Your task to perform on an android device: Clear all items from cart on newegg.com. Search for dell alienware on newegg.com, select the first entry, and add it to the cart. Image 0: 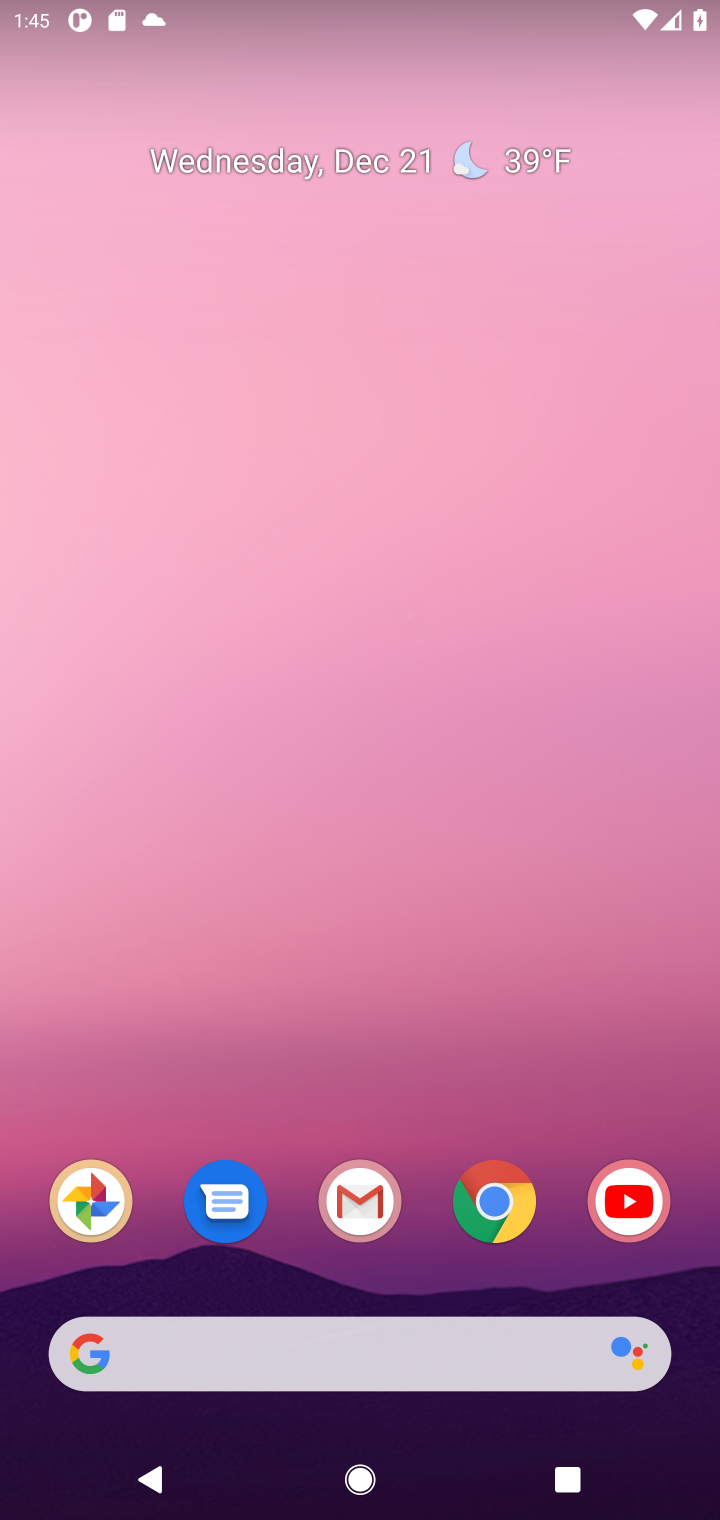
Step 0: click (492, 1205)
Your task to perform on an android device: Clear all items from cart on newegg.com. Search for dell alienware on newegg.com, select the first entry, and add it to the cart. Image 1: 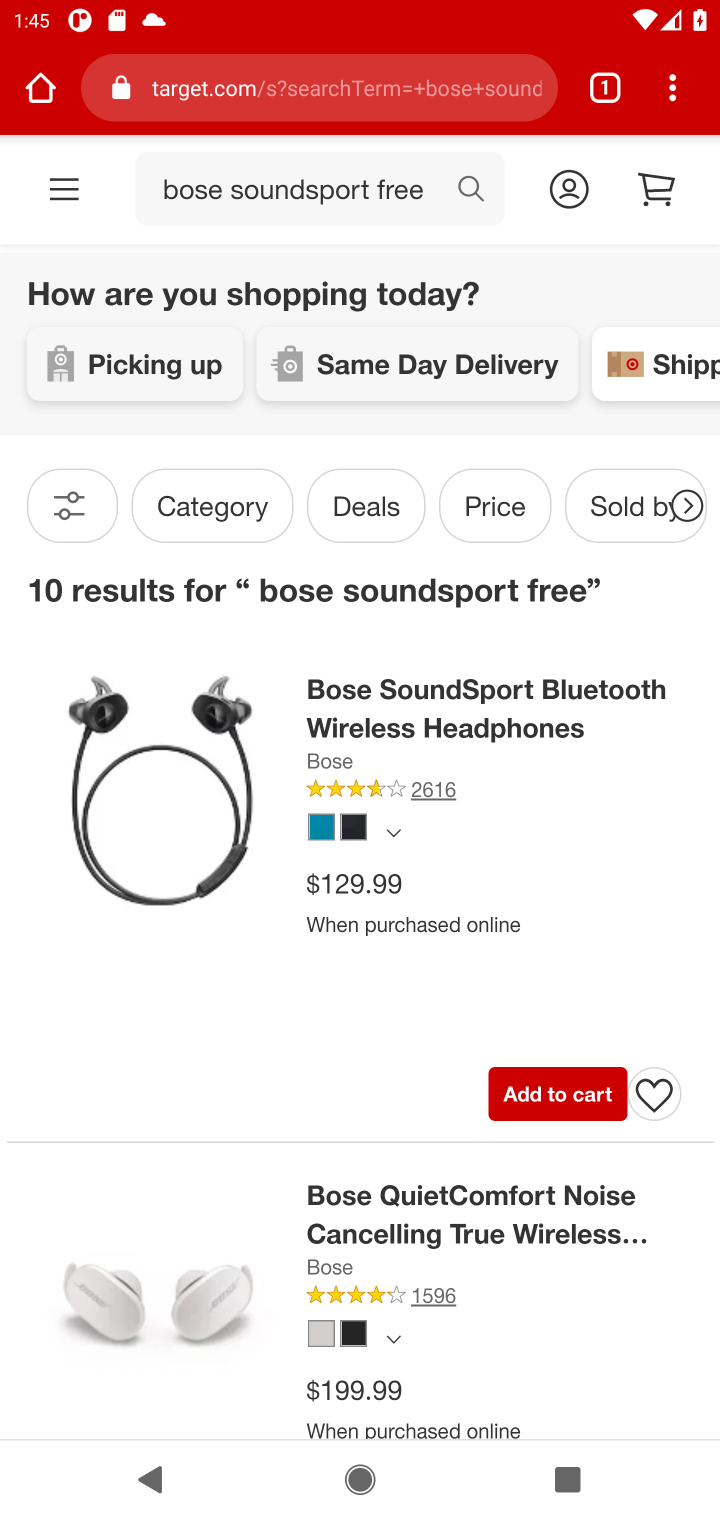
Step 1: click (234, 87)
Your task to perform on an android device: Clear all items from cart on newegg.com. Search for dell alienware on newegg.com, select the first entry, and add it to the cart. Image 2: 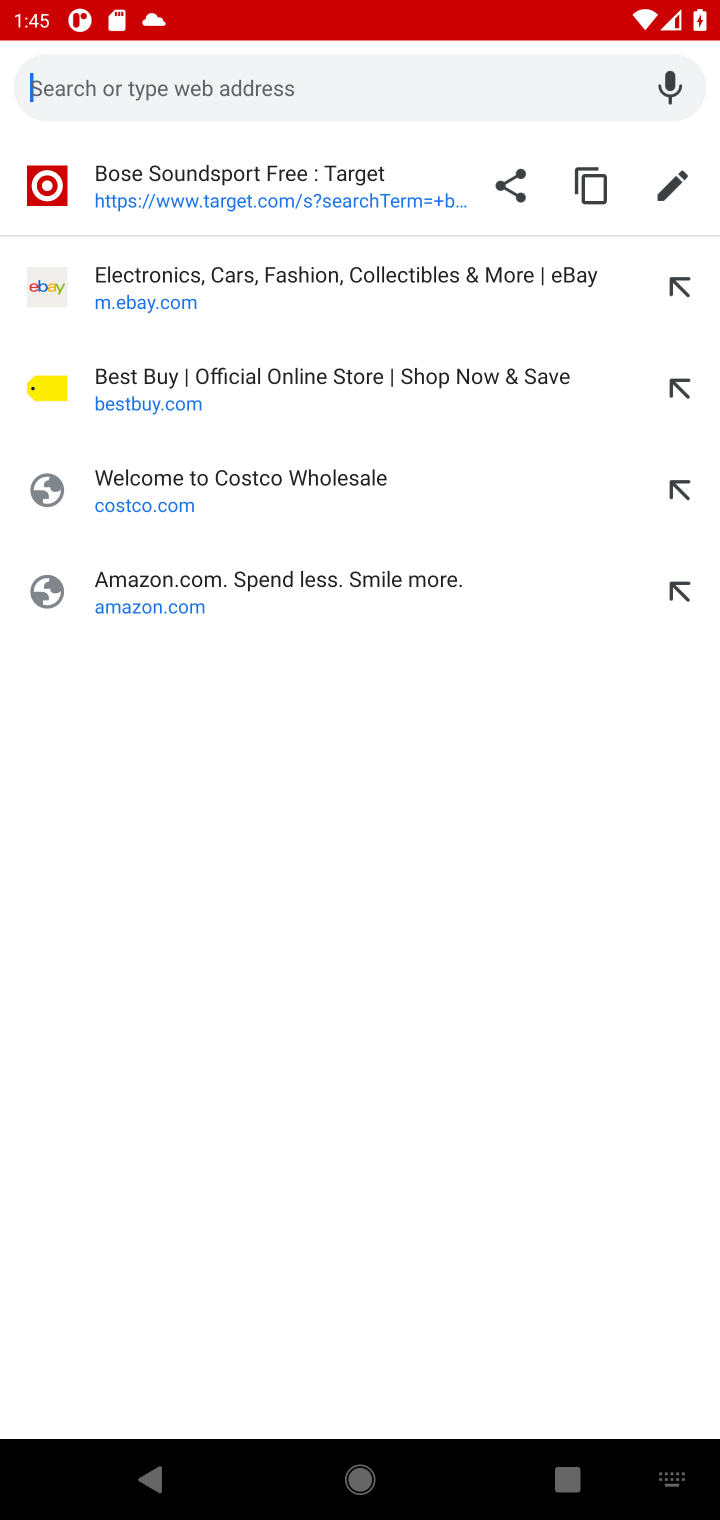
Step 2: type "newegg.com"
Your task to perform on an android device: Clear all items from cart on newegg.com. Search for dell alienware on newegg.com, select the first entry, and add it to the cart. Image 3: 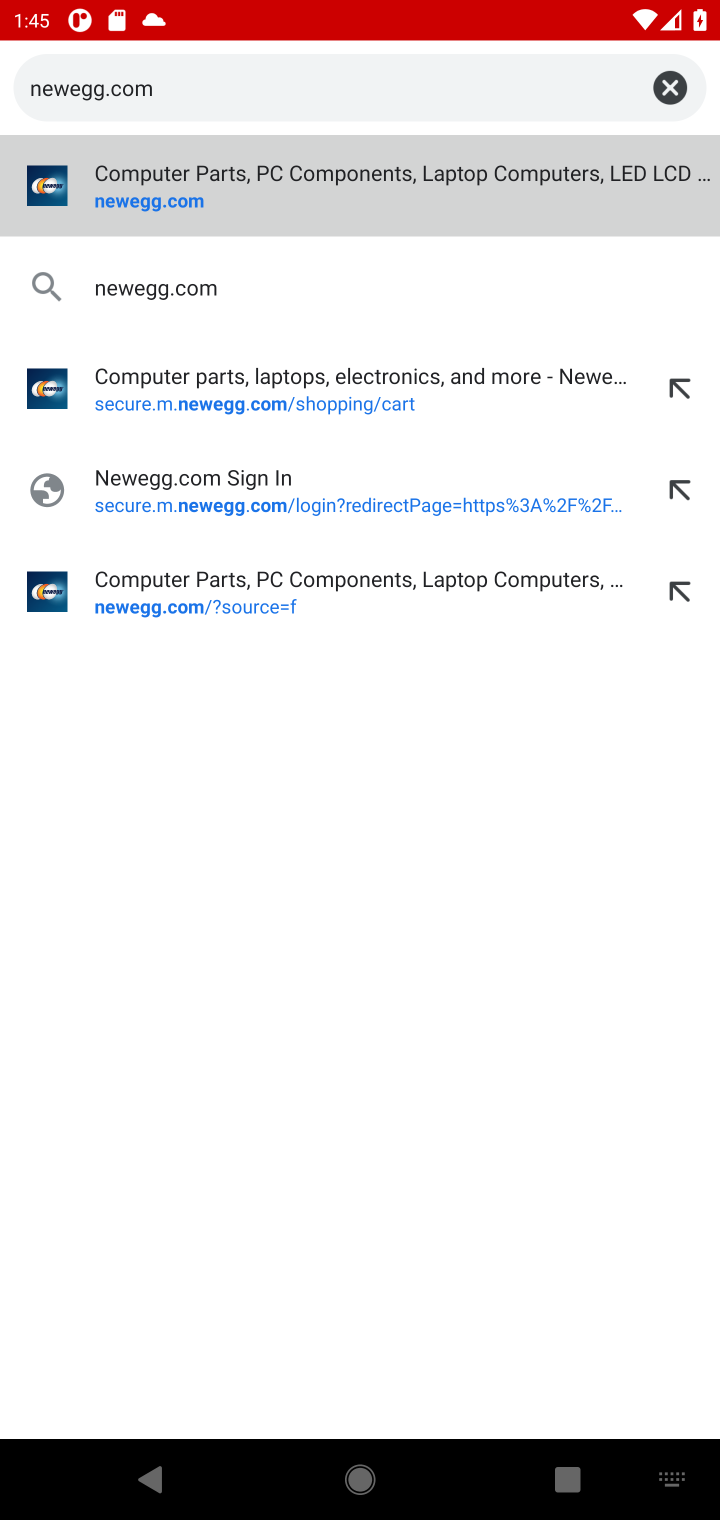
Step 3: click (155, 195)
Your task to perform on an android device: Clear all items from cart on newegg.com. Search for dell alienware on newegg.com, select the first entry, and add it to the cart. Image 4: 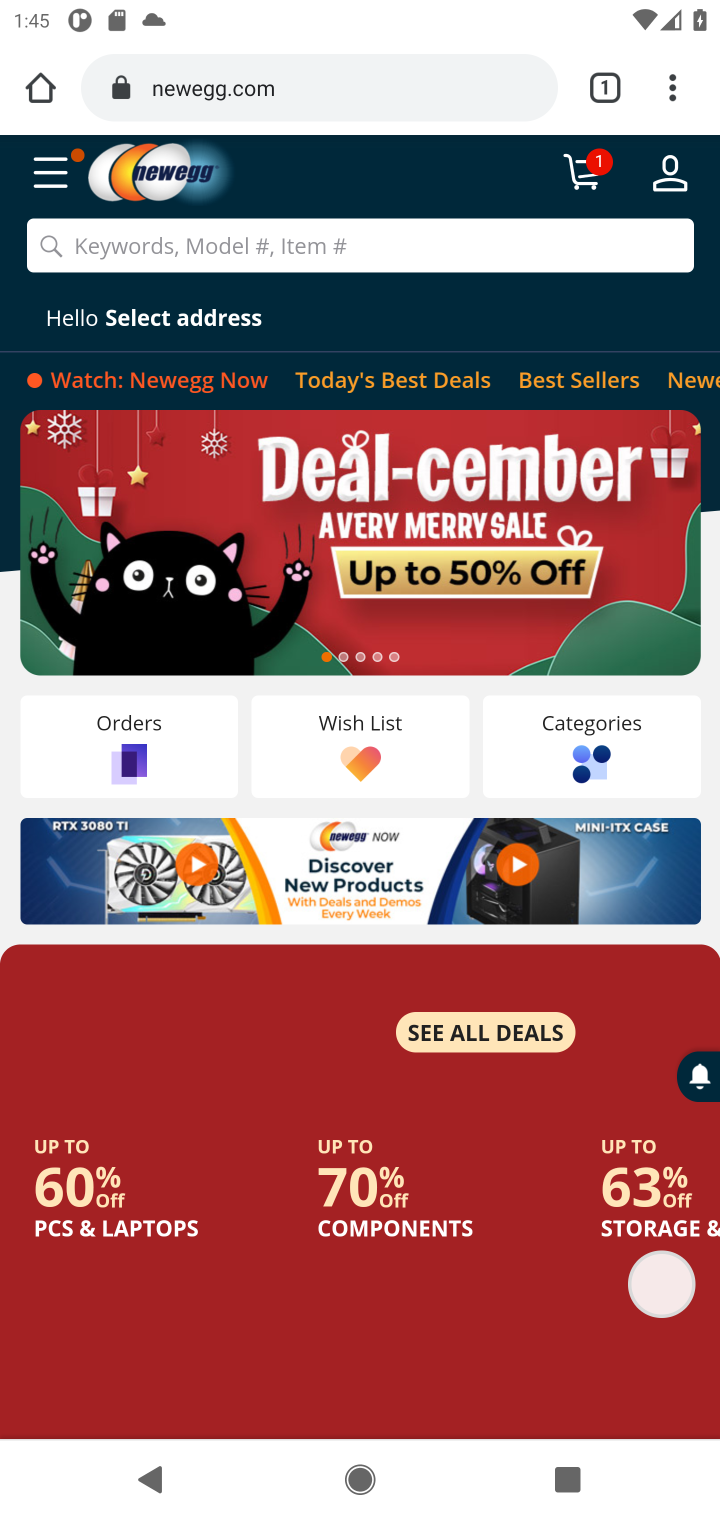
Step 4: click (581, 183)
Your task to perform on an android device: Clear all items from cart on newegg.com. Search for dell alienware on newegg.com, select the first entry, and add it to the cart. Image 5: 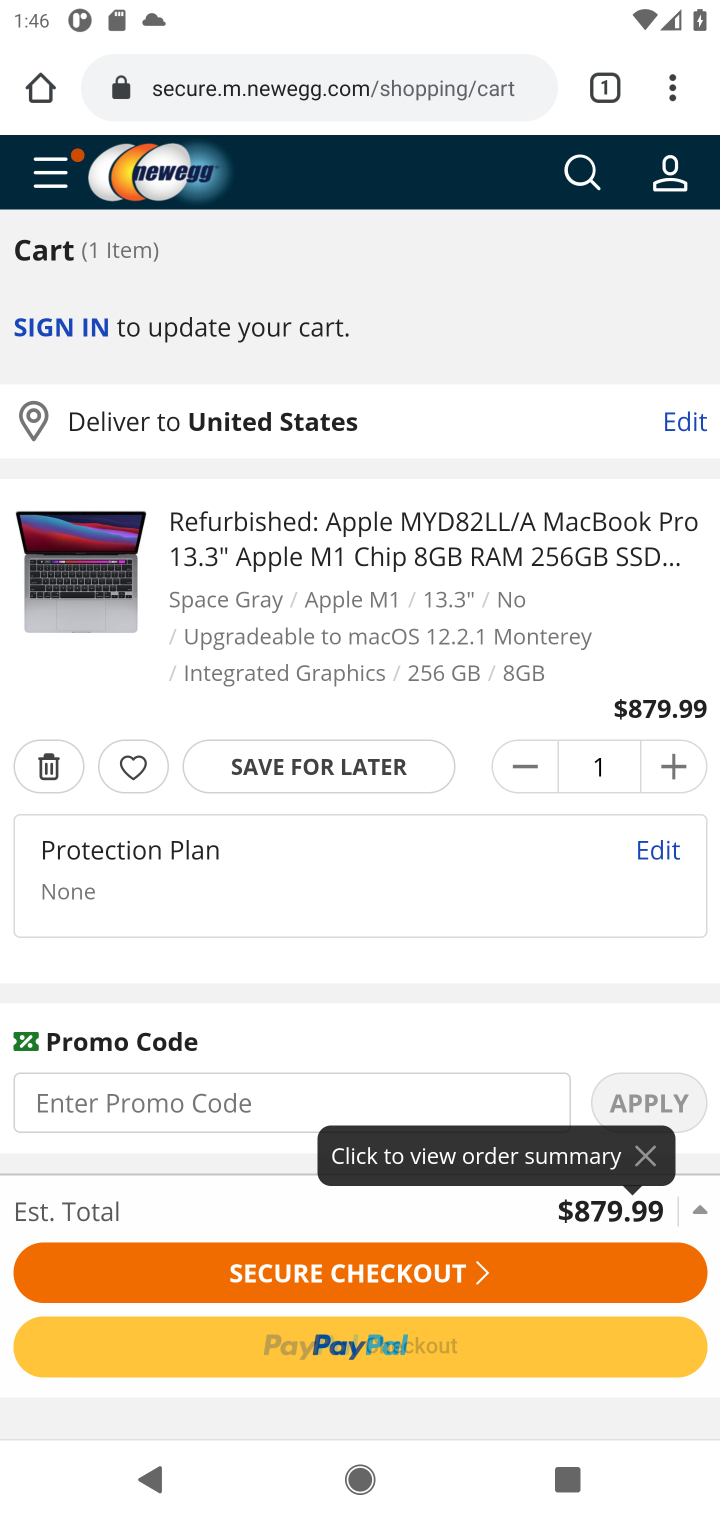
Step 5: click (40, 766)
Your task to perform on an android device: Clear all items from cart on newegg.com. Search for dell alienware on newegg.com, select the first entry, and add it to the cart. Image 6: 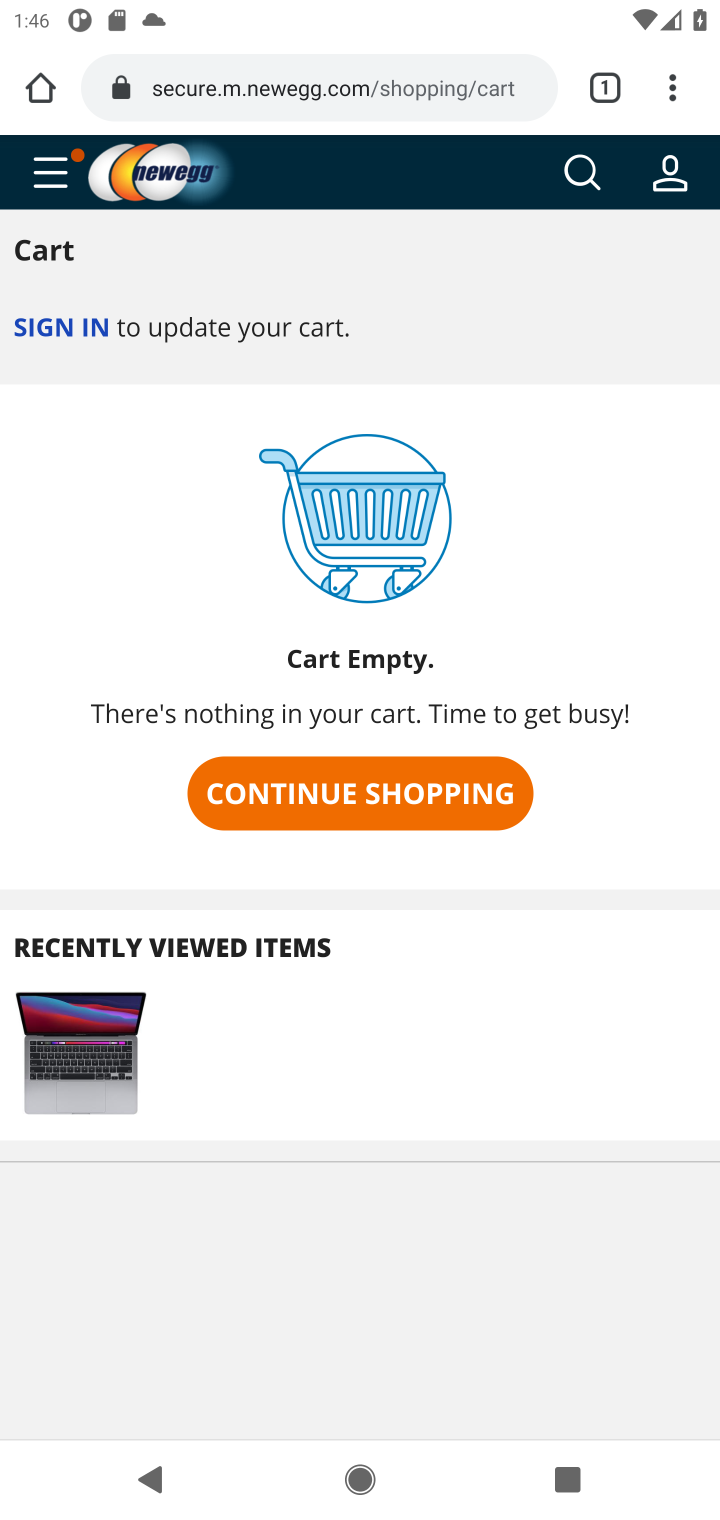
Step 6: click (586, 182)
Your task to perform on an android device: Clear all items from cart on newegg.com. Search for dell alienware on newegg.com, select the first entry, and add it to the cart. Image 7: 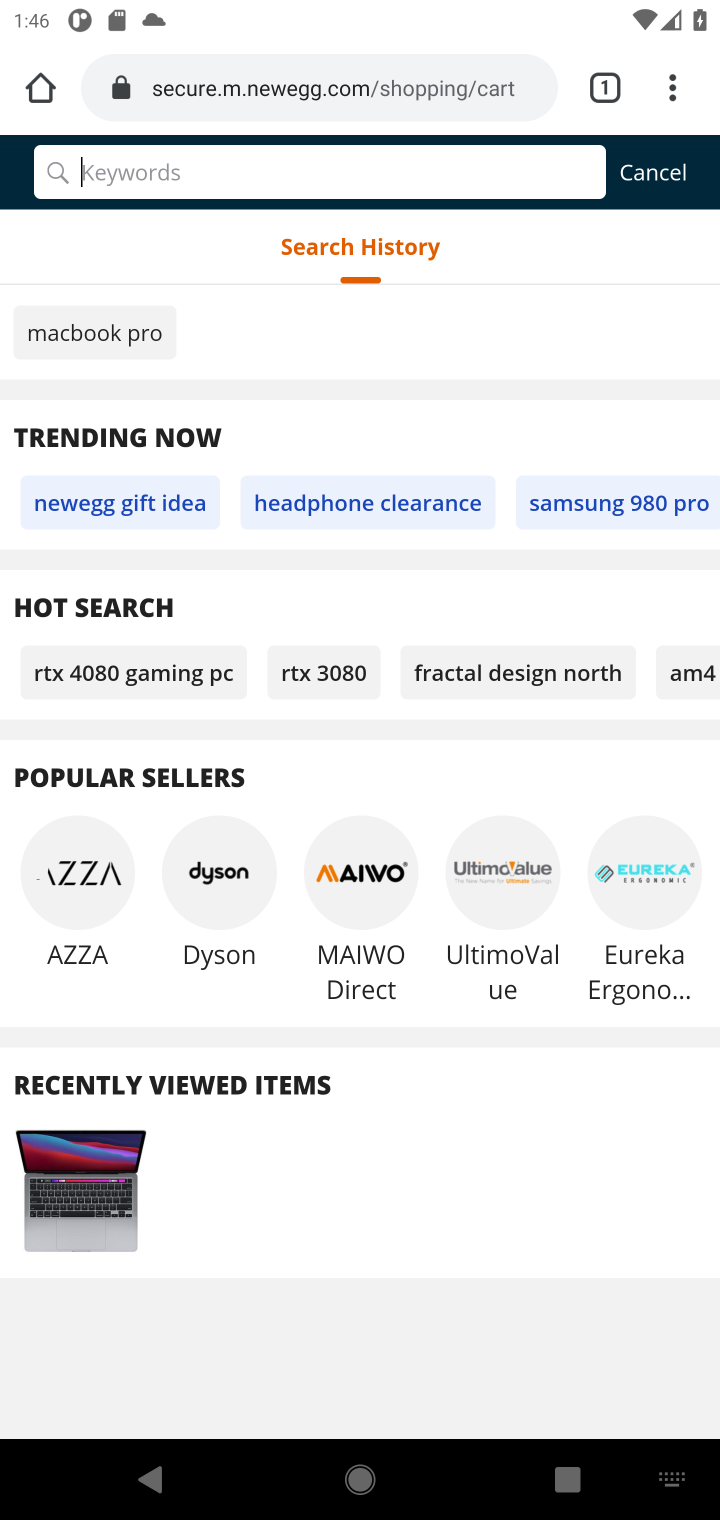
Step 7: type "dell alienware"
Your task to perform on an android device: Clear all items from cart on newegg.com. Search for dell alienware on newegg.com, select the first entry, and add it to the cart. Image 8: 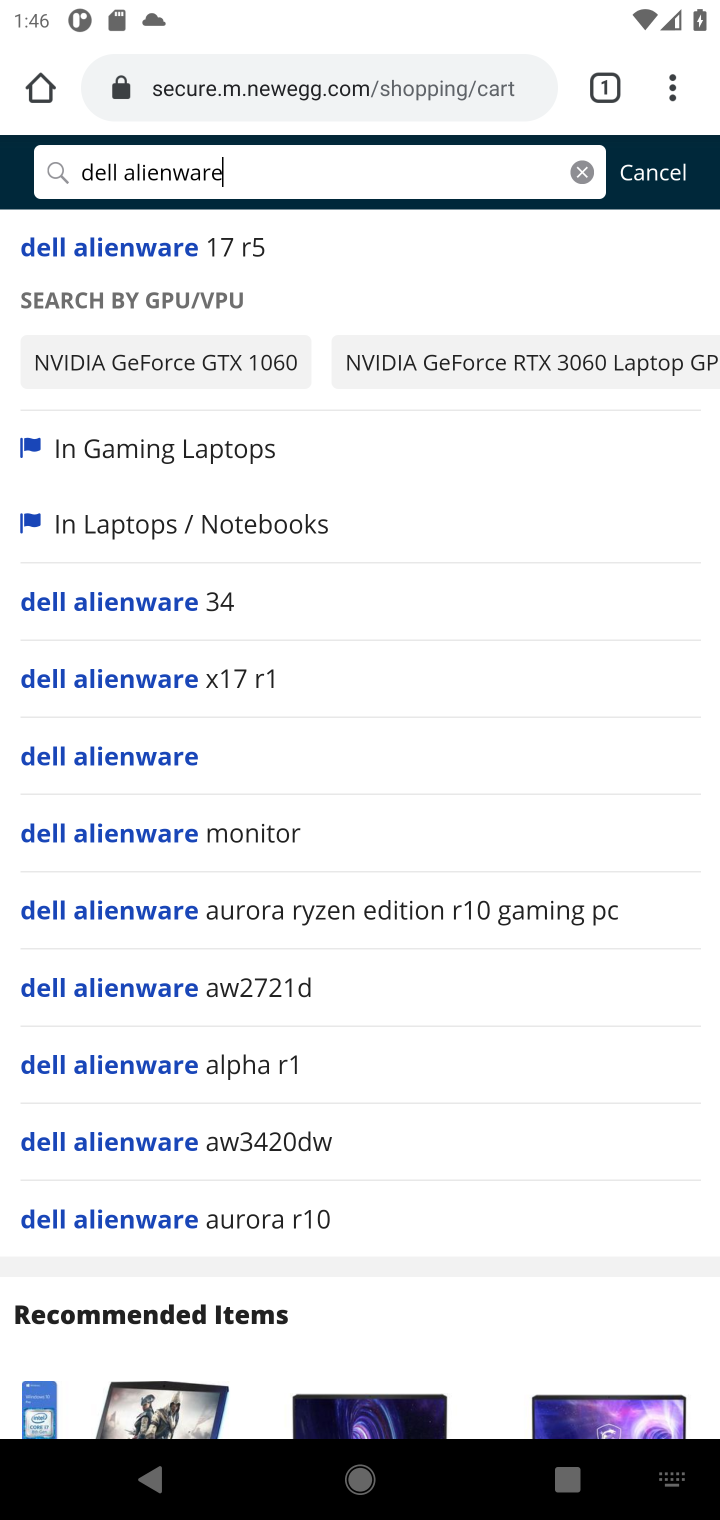
Step 8: click (86, 761)
Your task to perform on an android device: Clear all items from cart on newegg.com. Search for dell alienware on newegg.com, select the first entry, and add it to the cart. Image 9: 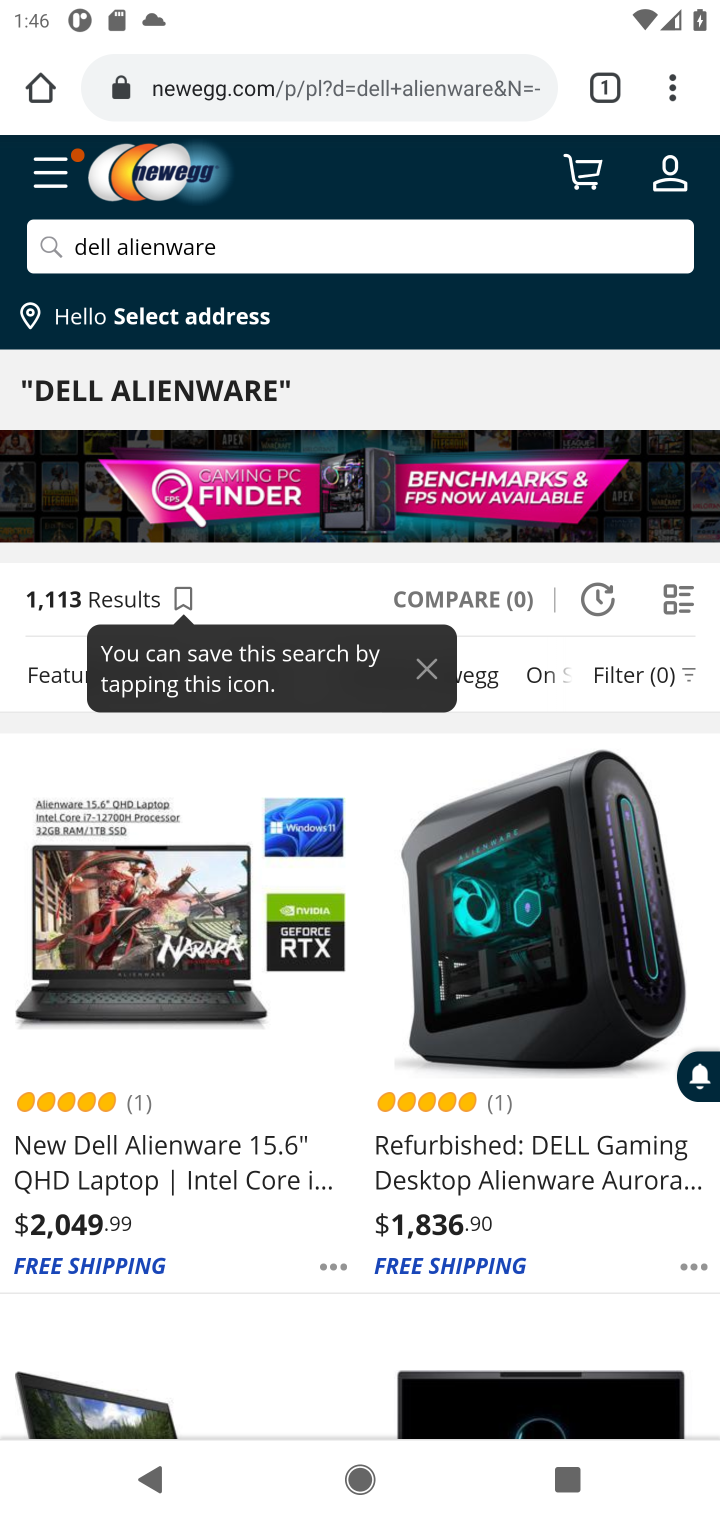
Step 9: drag from (292, 1155) to (285, 947)
Your task to perform on an android device: Clear all items from cart on newegg.com. Search for dell alienware on newegg.com, select the first entry, and add it to the cart. Image 10: 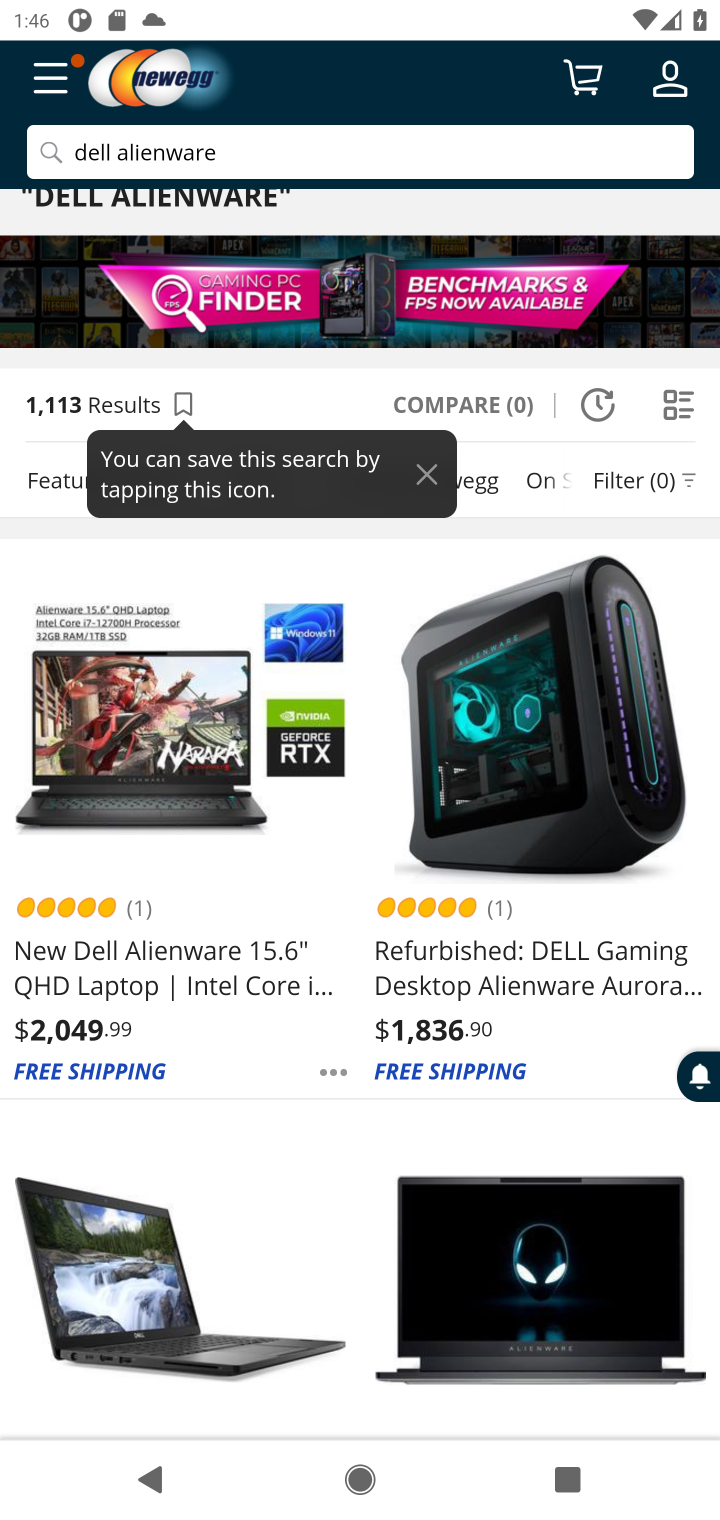
Step 10: click (163, 962)
Your task to perform on an android device: Clear all items from cart on newegg.com. Search for dell alienware on newegg.com, select the first entry, and add it to the cart. Image 11: 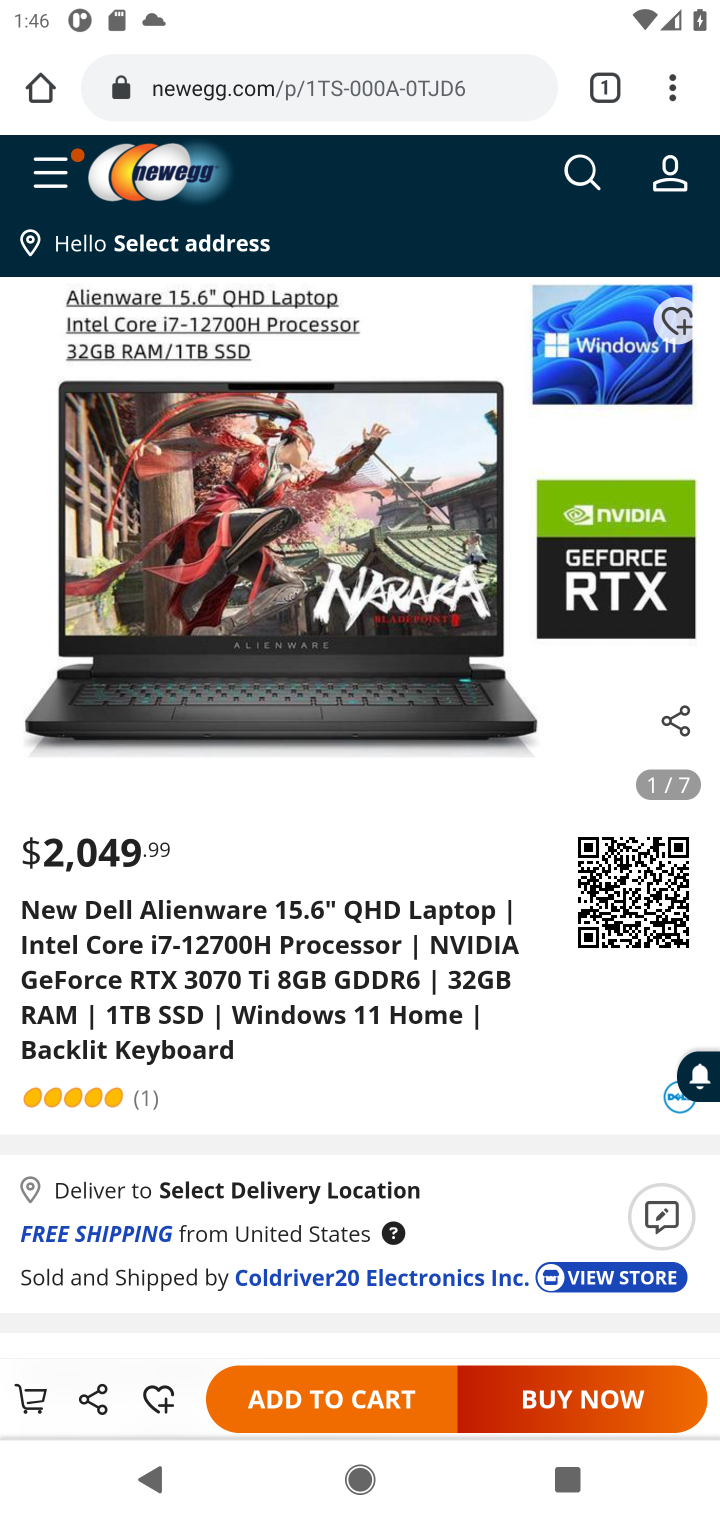
Step 11: click (327, 1411)
Your task to perform on an android device: Clear all items from cart on newegg.com. Search for dell alienware on newegg.com, select the first entry, and add it to the cart. Image 12: 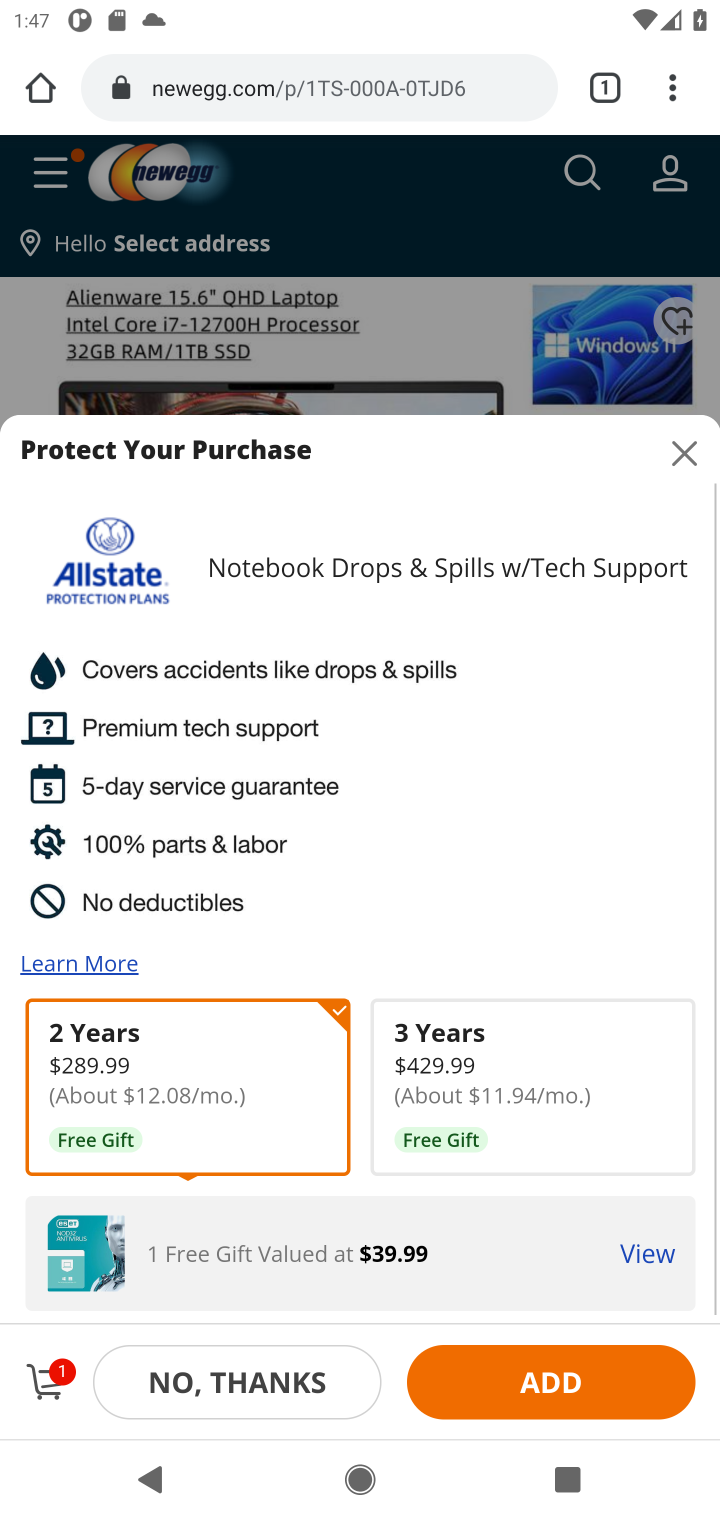
Step 12: task complete